Your task to perform on an android device: Go to Amazon Image 0: 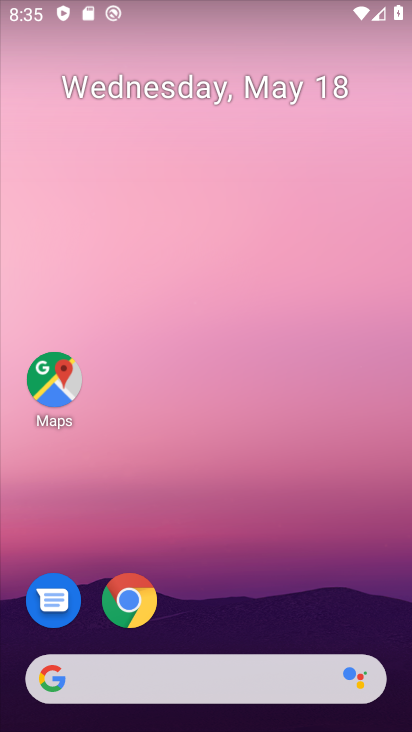
Step 0: click (140, 604)
Your task to perform on an android device: Go to Amazon Image 1: 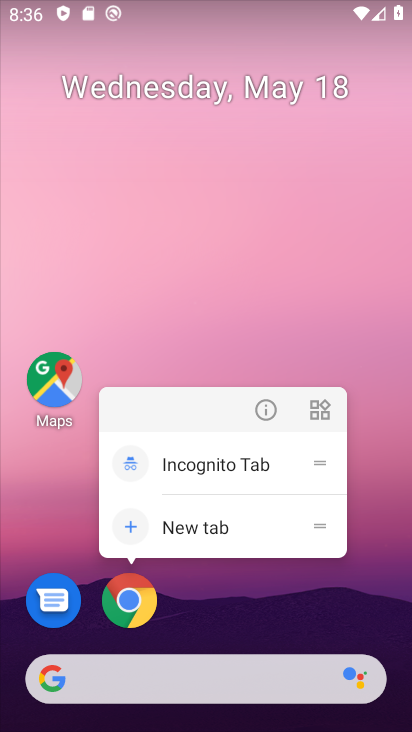
Step 1: click (125, 591)
Your task to perform on an android device: Go to Amazon Image 2: 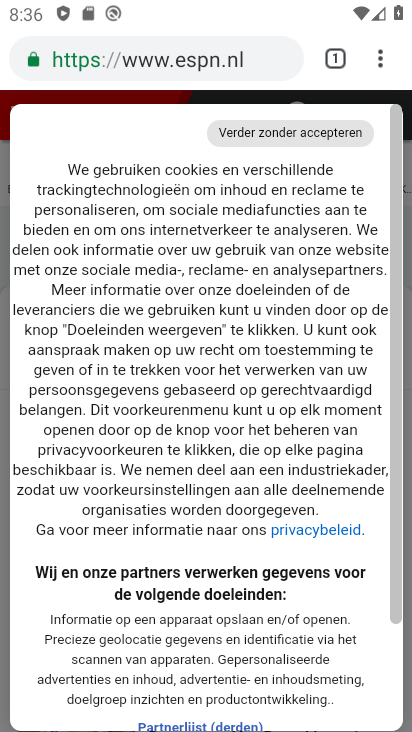
Step 2: click (327, 64)
Your task to perform on an android device: Go to Amazon Image 3: 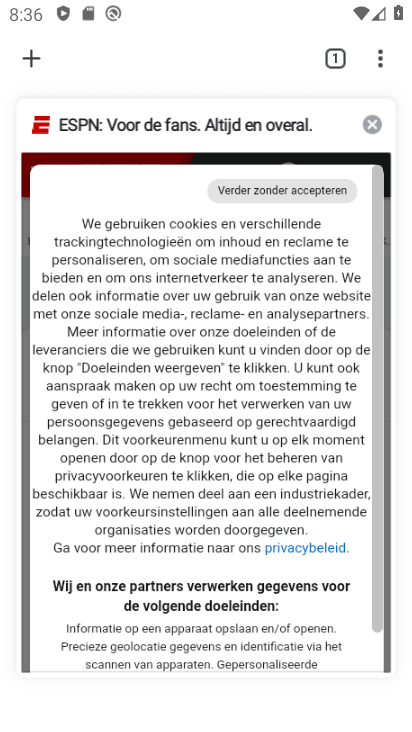
Step 3: click (379, 130)
Your task to perform on an android device: Go to Amazon Image 4: 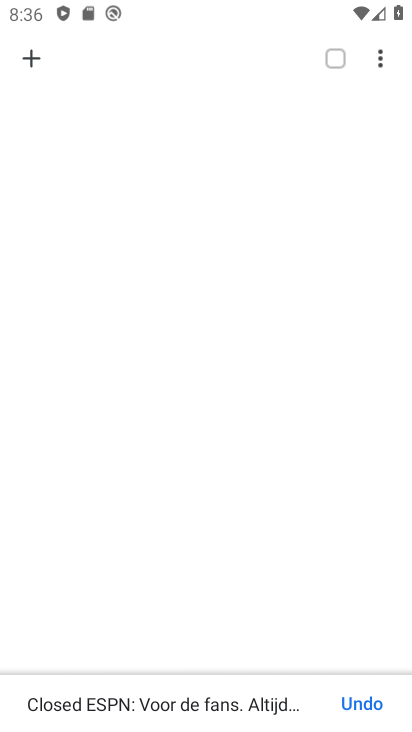
Step 4: click (31, 58)
Your task to perform on an android device: Go to Amazon Image 5: 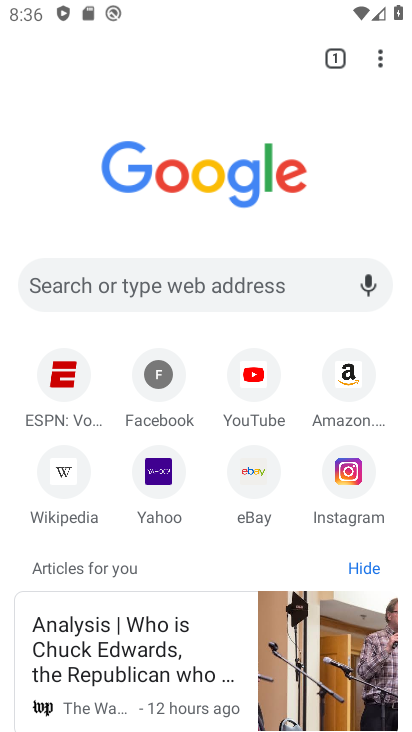
Step 5: click (329, 383)
Your task to perform on an android device: Go to Amazon Image 6: 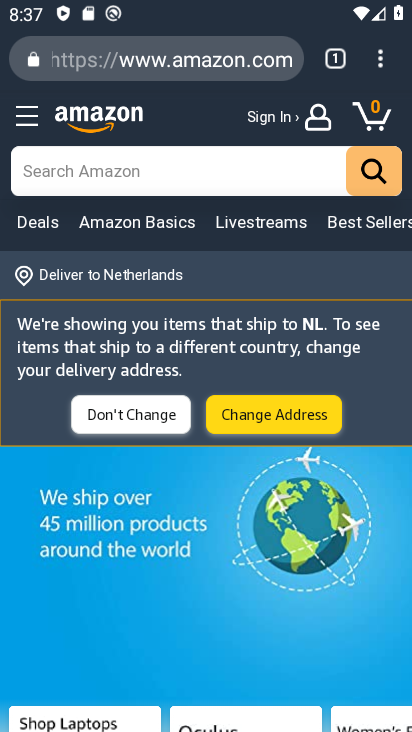
Step 6: task complete